Your task to perform on an android device: Show me popular games on the Play Store Image 0: 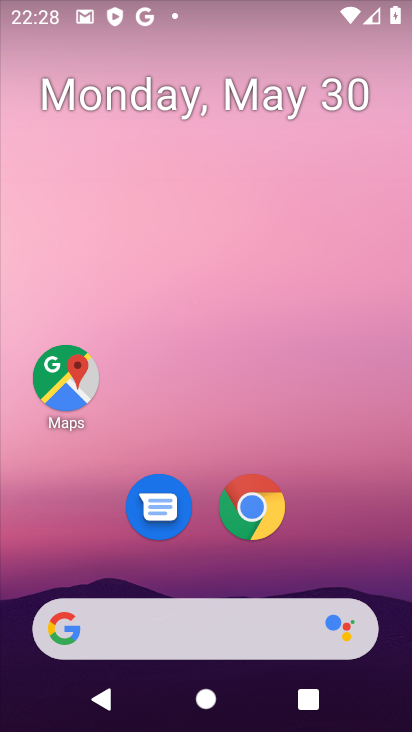
Step 0: drag from (384, 549) to (386, 123)
Your task to perform on an android device: Show me popular games on the Play Store Image 1: 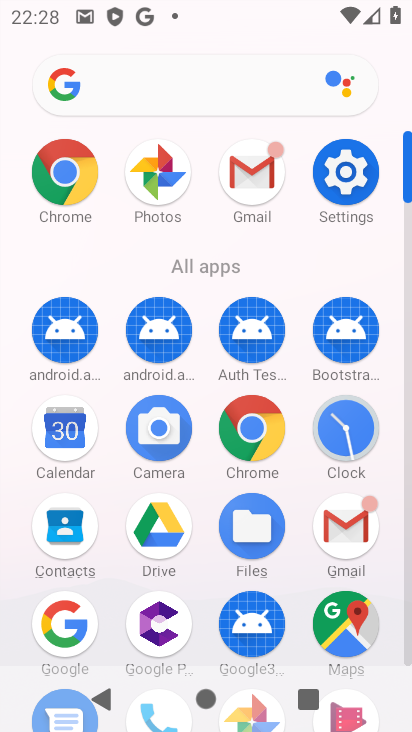
Step 1: drag from (390, 575) to (390, 265)
Your task to perform on an android device: Show me popular games on the Play Store Image 2: 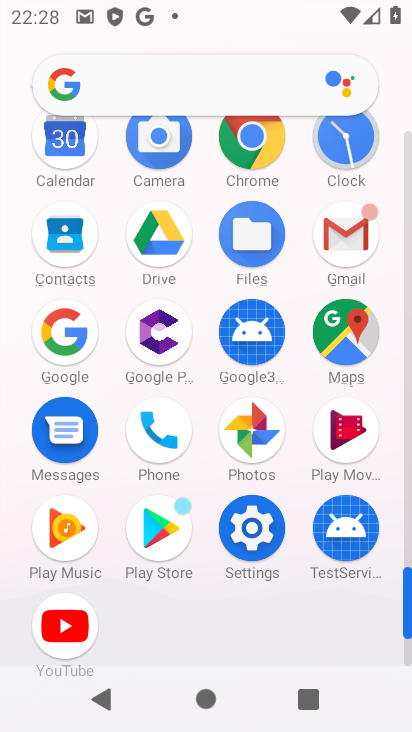
Step 2: click (161, 528)
Your task to perform on an android device: Show me popular games on the Play Store Image 3: 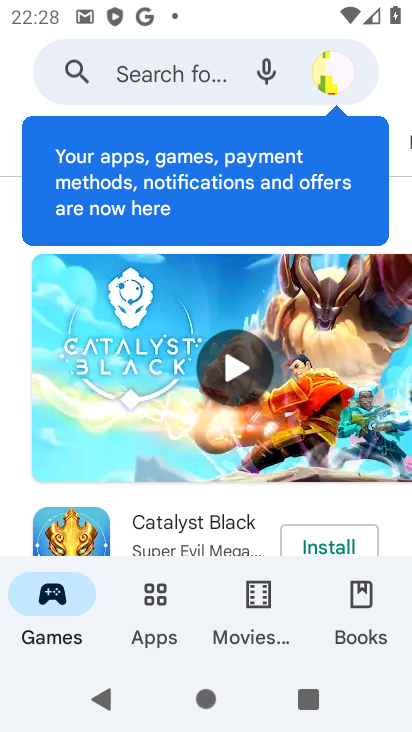
Step 3: task complete